Your task to perform on an android device: Show me recent news Image 0: 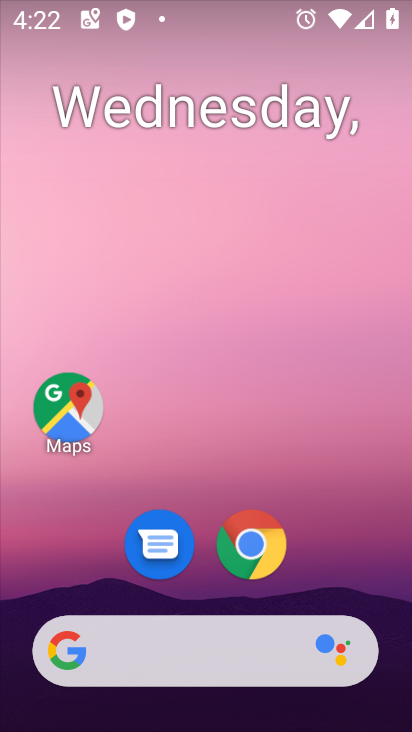
Step 0: drag from (0, 200) to (394, 294)
Your task to perform on an android device: Show me recent news Image 1: 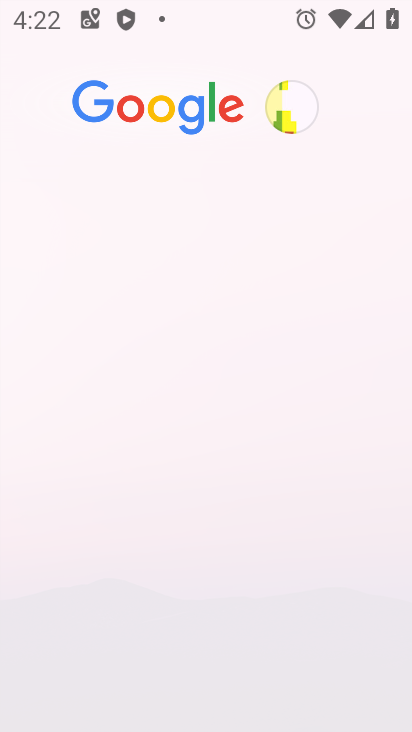
Step 1: task complete